Your task to perform on an android device: check google app version Image 0: 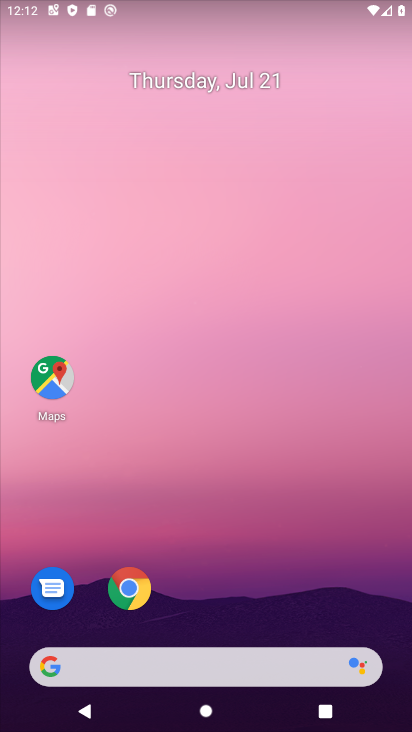
Step 0: click (40, 658)
Your task to perform on an android device: check google app version Image 1: 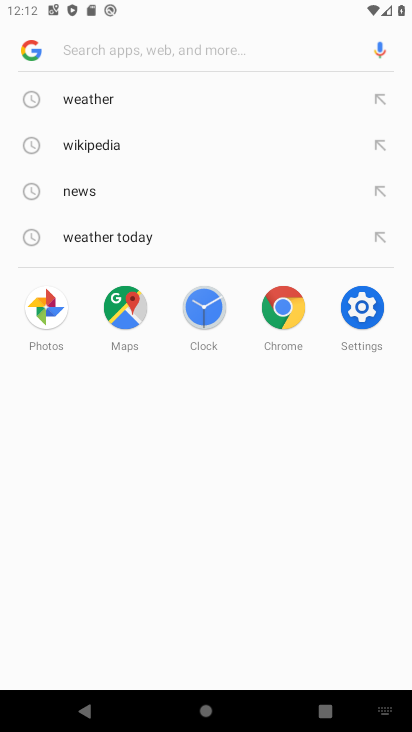
Step 1: click (30, 43)
Your task to perform on an android device: check google app version Image 2: 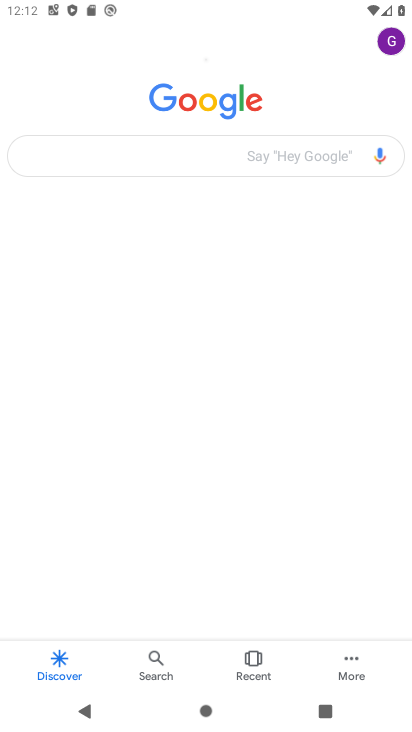
Step 2: click (354, 658)
Your task to perform on an android device: check google app version Image 3: 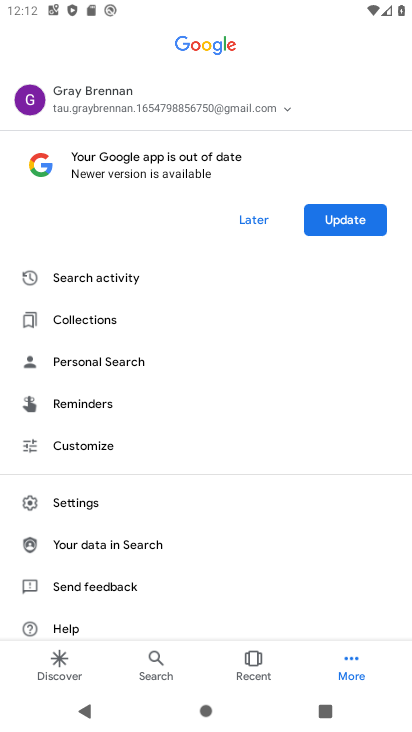
Step 3: drag from (82, 610) to (82, 336)
Your task to perform on an android device: check google app version Image 4: 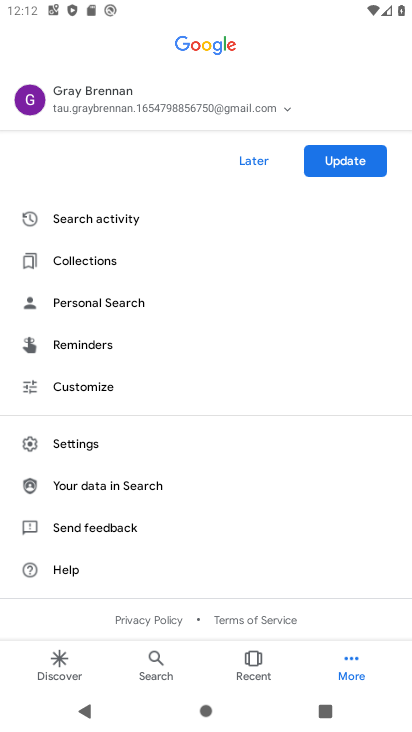
Step 4: click (80, 443)
Your task to perform on an android device: check google app version Image 5: 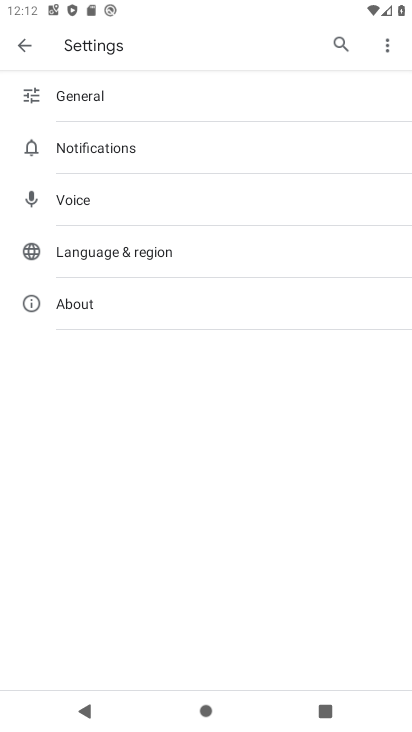
Step 5: click (94, 306)
Your task to perform on an android device: check google app version Image 6: 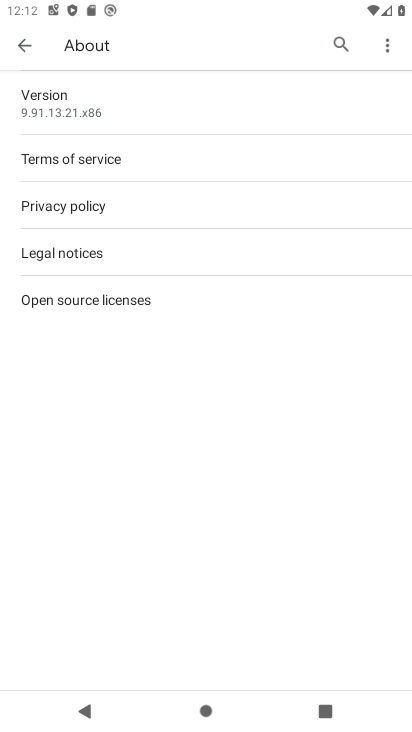
Step 6: task complete